Your task to perform on an android device: read, delete, or share a saved page in the chrome app Image 0: 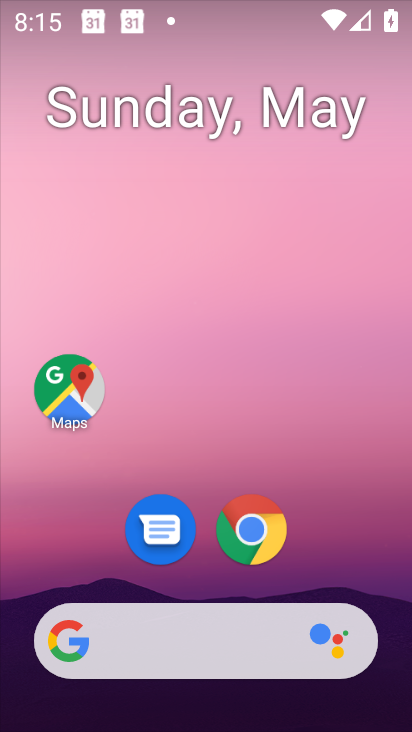
Step 0: click (240, 546)
Your task to perform on an android device: read, delete, or share a saved page in the chrome app Image 1: 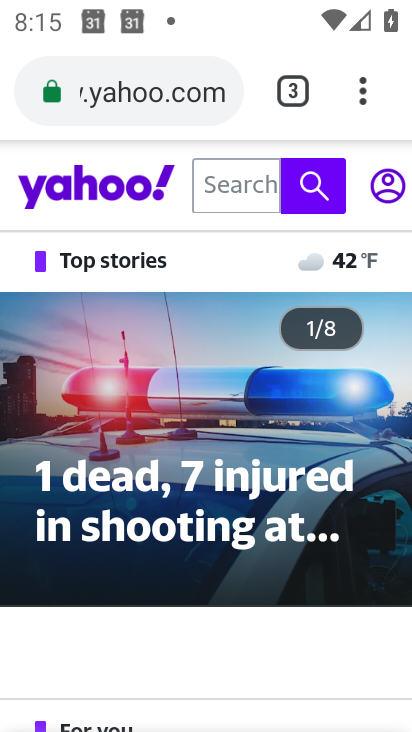
Step 1: click (361, 97)
Your task to perform on an android device: read, delete, or share a saved page in the chrome app Image 2: 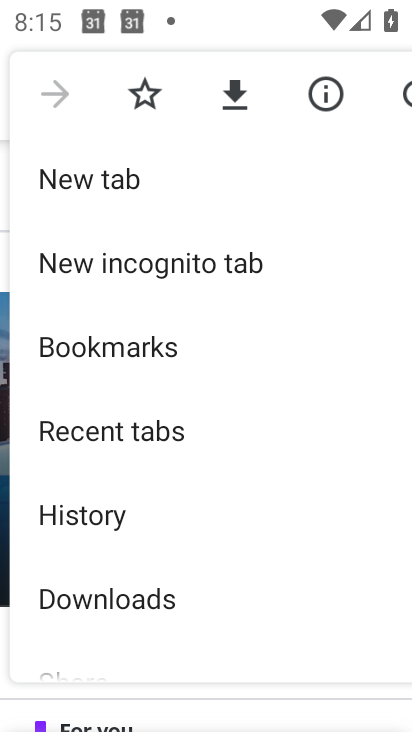
Step 2: drag from (165, 574) to (176, 433)
Your task to perform on an android device: read, delete, or share a saved page in the chrome app Image 3: 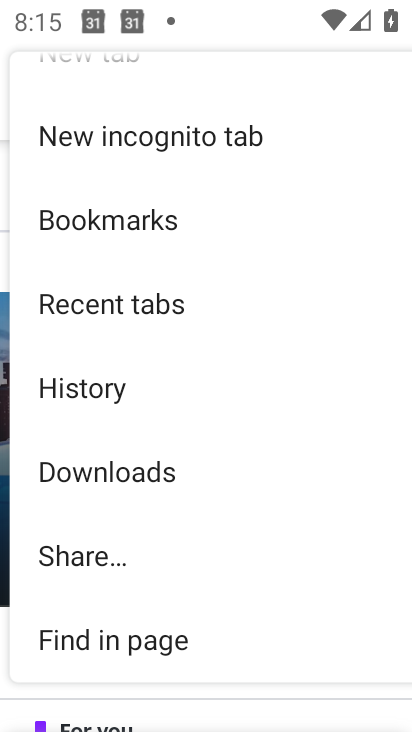
Step 3: click (188, 489)
Your task to perform on an android device: read, delete, or share a saved page in the chrome app Image 4: 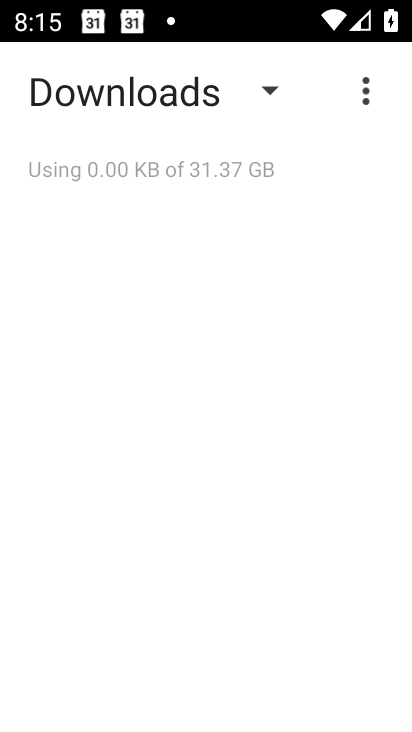
Step 4: task complete